Your task to perform on an android device: Open display settings Image 0: 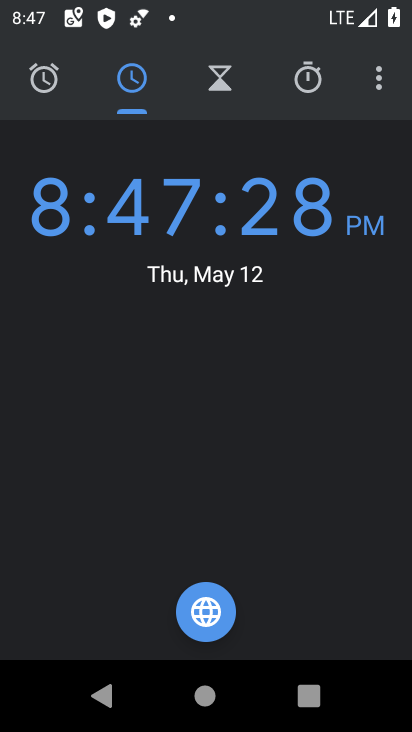
Step 0: press home button
Your task to perform on an android device: Open display settings Image 1: 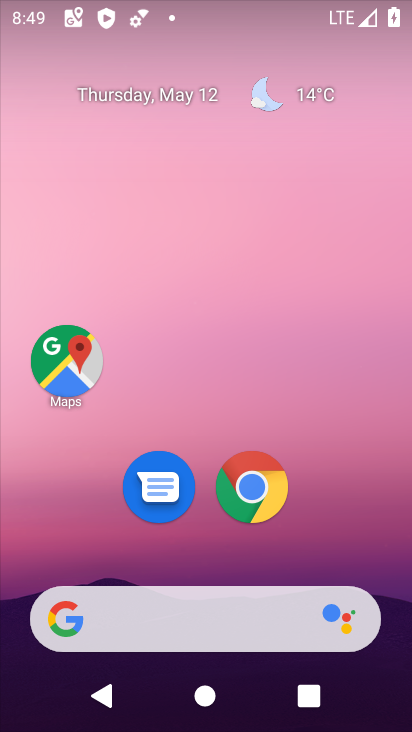
Step 1: drag from (47, 582) to (194, 283)
Your task to perform on an android device: Open display settings Image 2: 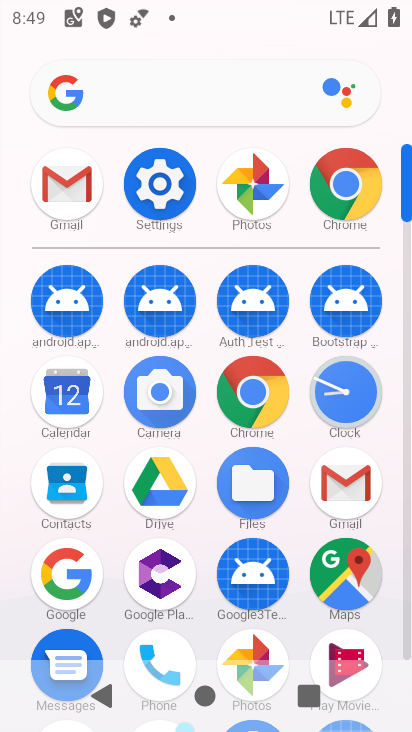
Step 2: click (164, 176)
Your task to perform on an android device: Open display settings Image 3: 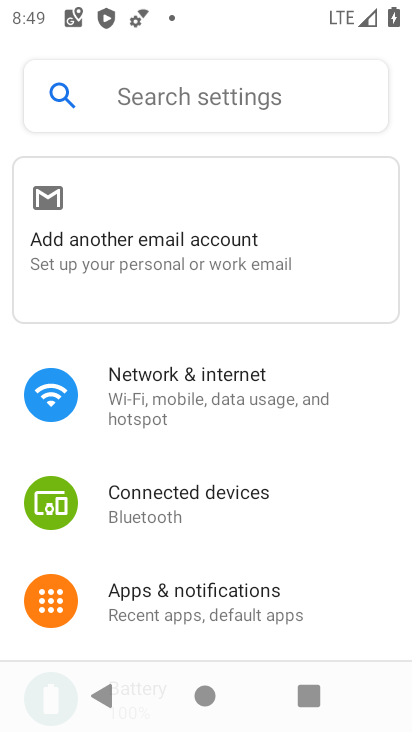
Step 3: drag from (6, 643) to (219, 206)
Your task to perform on an android device: Open display settings Image 4: 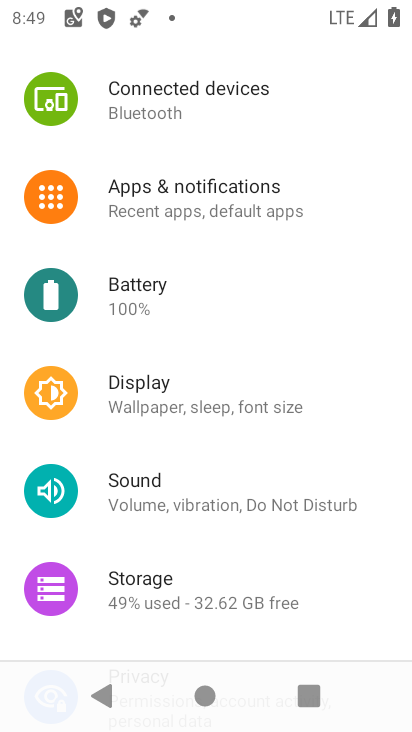
Step 4: drag from (69, 593) to (236, 274)
Your task to perform on an android device: Open display settings Image 5: 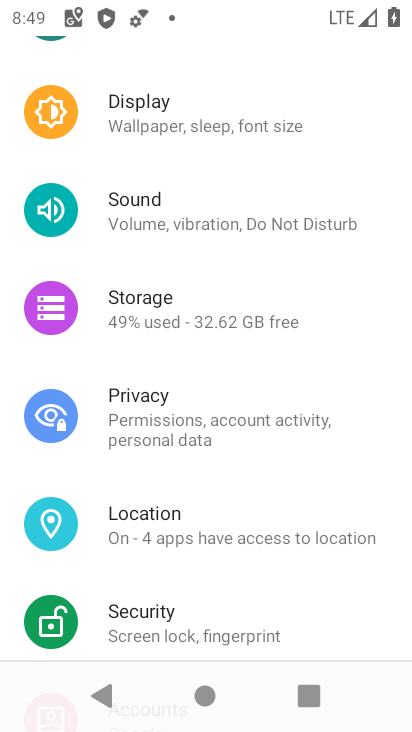
Step 5: drag from (14, 618) to (268, 158)
Your task to perform on an android device: Open display settings Image 6: 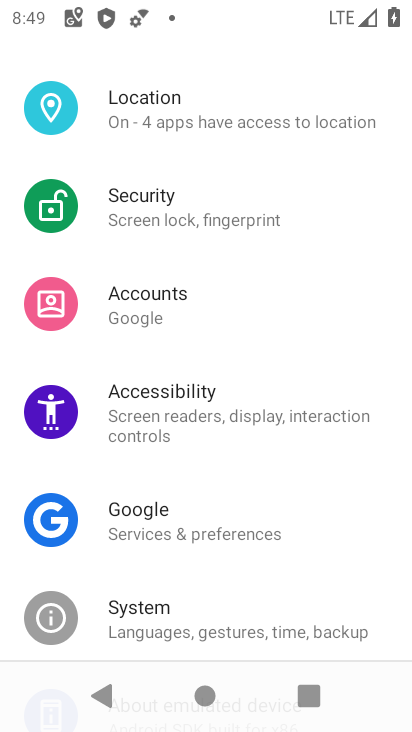
Step 6: drag from (277, 129) to (202, 595)
Your task to perform on an android device: Open display settings Image 7: 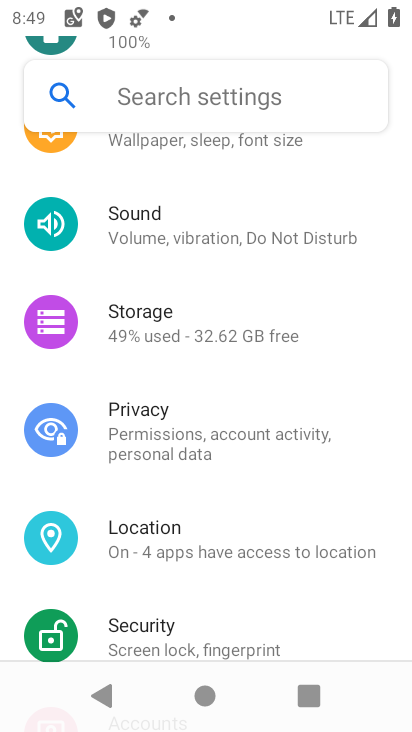
Step 7: drag from (243, 230) to (190, 586)
Your task to perform on an android device: Open display settings Image 8: 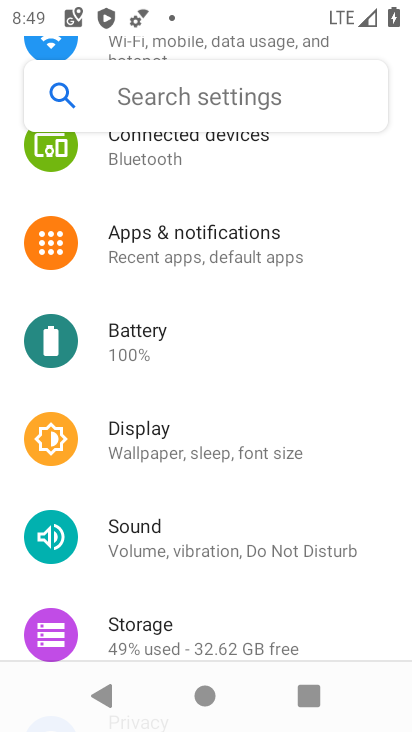
Step 8: click (189, 447)
Your task to perform on an android device: Open display settings Image 9: 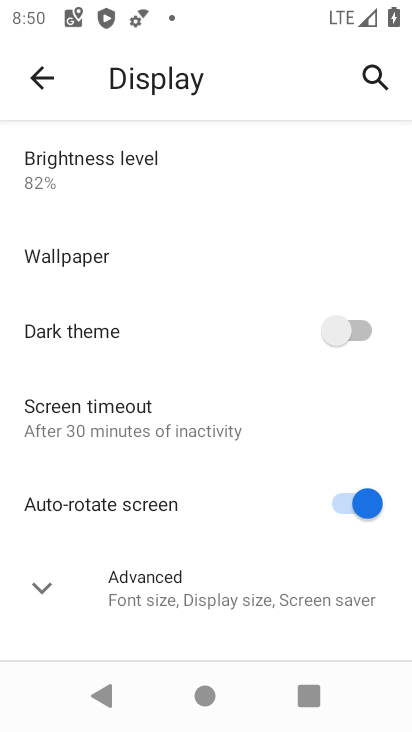
Step 9: task complete